Your task to perform on an android device: Check the news Image 0: 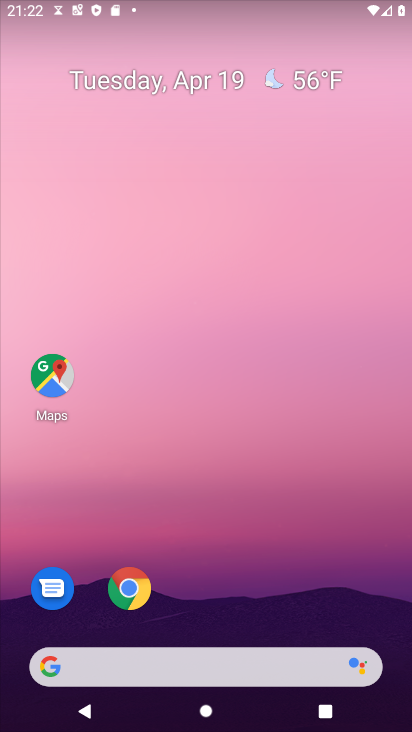
Step 0: drag from (194, 612) to (276, 75)
Your task to perform on an android device: Check the news Image 1: 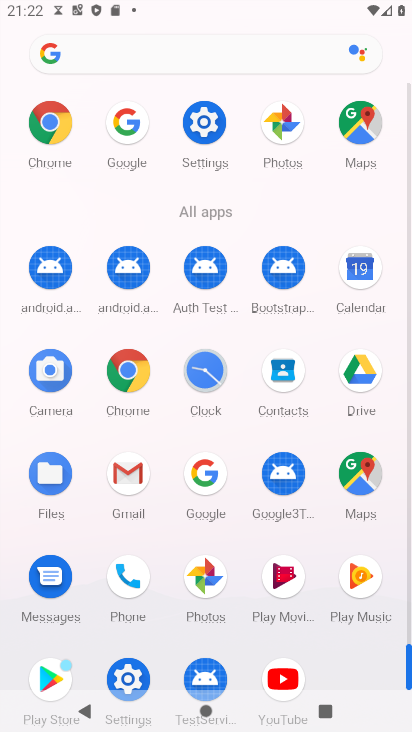
Step 1: click (126, 125)
Your task to perform on an android device: Check the news Image 2: 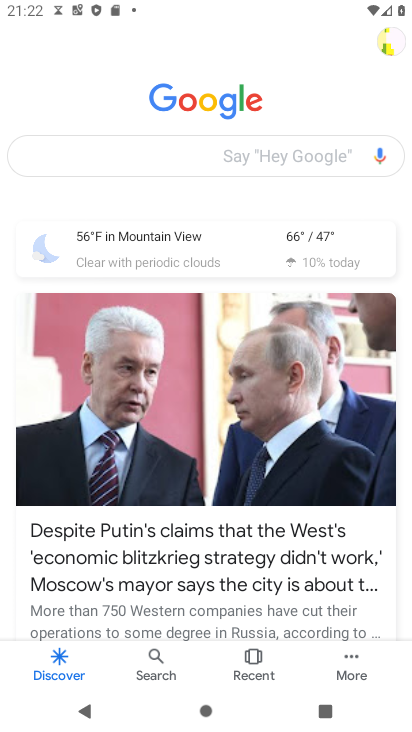
Step 2: drag from (179, 541) to (221, 391)
Your task to perform on an android device: Check the news Image 3: 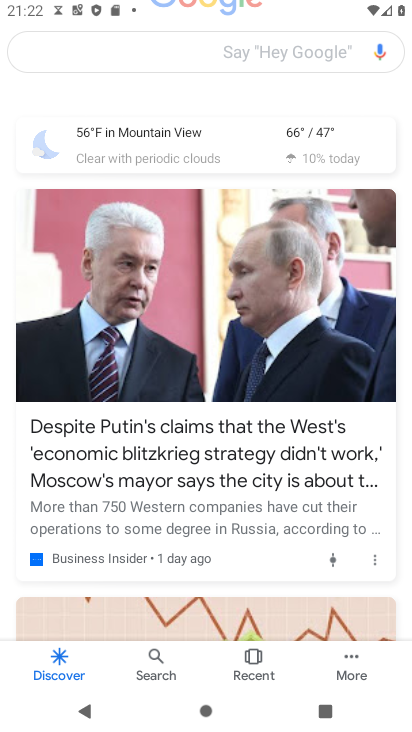
Step 3: drag from (195, 490) to (204, 305)
Your task to perform on an android device: Check the news Image 4: 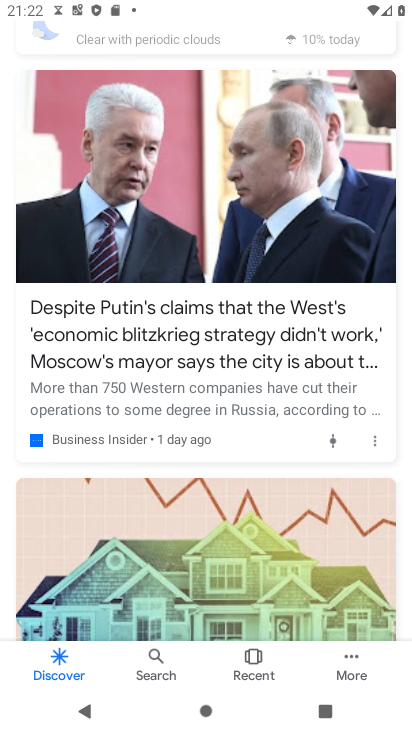
Step 4: drag from (201, 590) to (257, 337)
Your task to perform on an android device: Check the news Image 5: 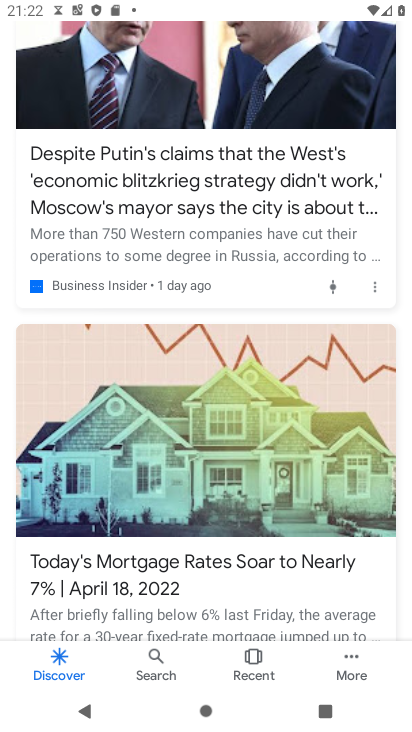
Step 5: drag from (248, 303) to (280, 428)
Your task to perform on an android device: Check the news Image 6: 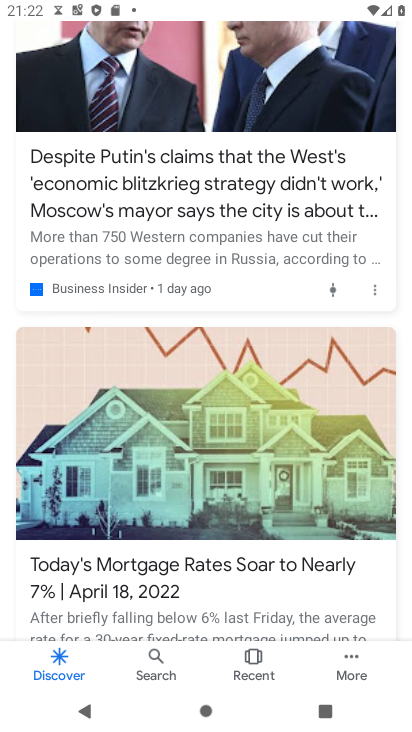
Step 6: drag from (227, 172) to (245, 376)
Your task to perform on an android device: Check the news Image 7: 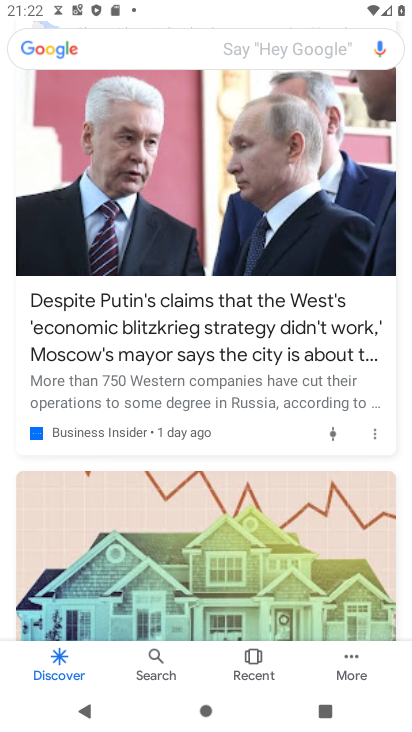
Step 7: drag from (203, 293) to (213, 467)
Your task to perform on an android device: Check the news Image 8: 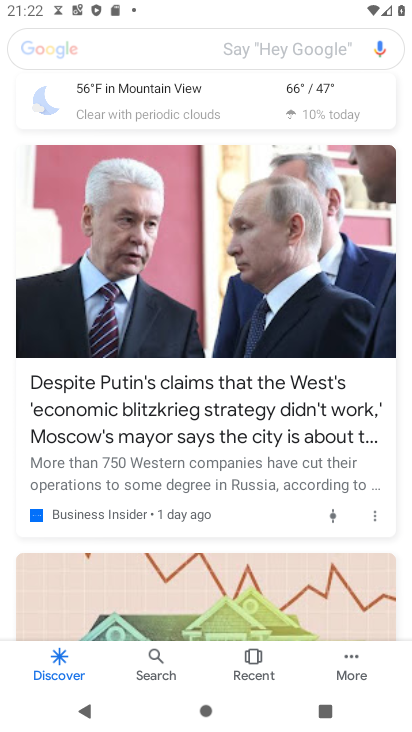
Step 8: click (217, 50)
Your task to perform on an android device: Check the news Image 9: 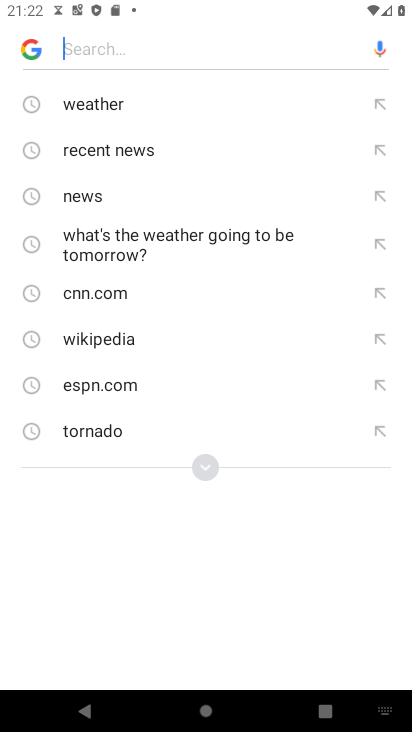
Step 9: click (94, 198)
Your task to perform on an android device: Check the news Image 10: 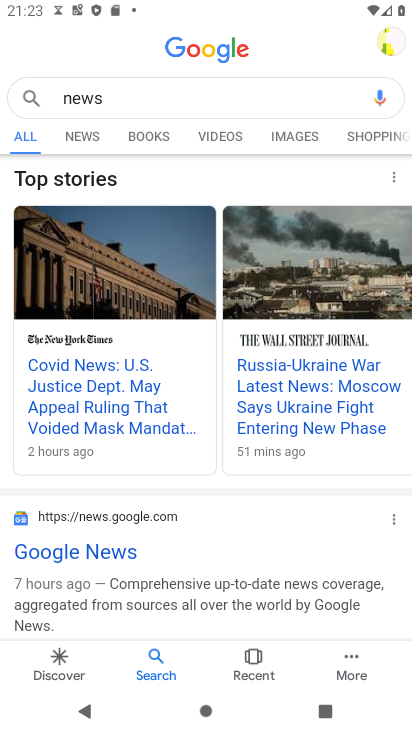
Step 10: task complete